Your task to perform on an android device: Search for sushi restaurants on Maps Image 0: 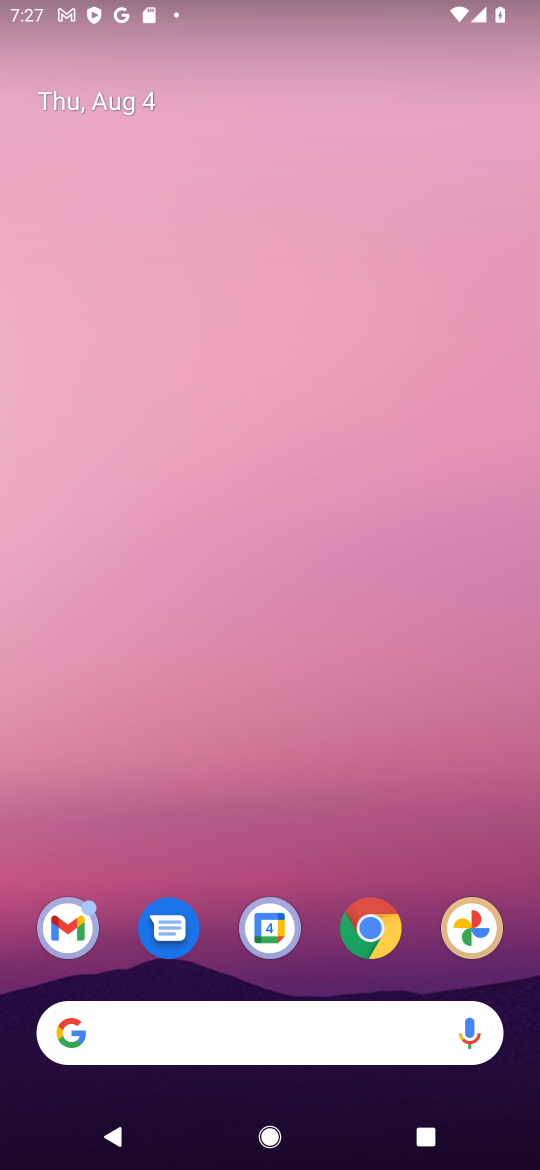
Step 0: drag from (187, 608) to (228, 132)
Your task to perform on an android device: Search for sushi restaurants on Maps Image 1: 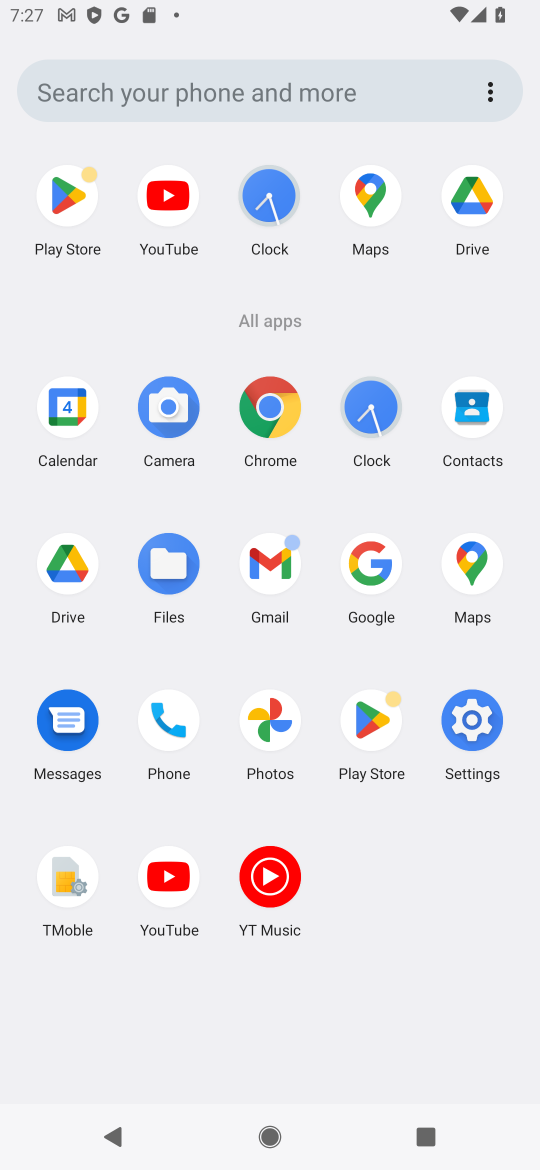
Step 1: click (470, 585)
Your task to perform on an android device: Search for sushi restaurants on Maps Image 2: 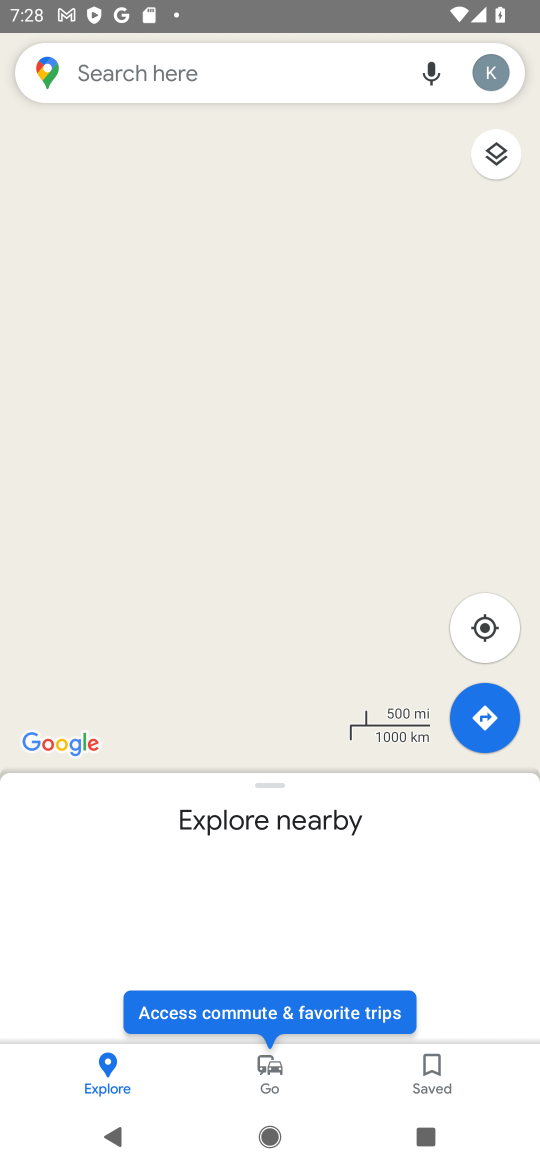
Step 2: click (237, 73)
Your task to perform on an android device: Search for sushi restaurants on Maps Image 3: 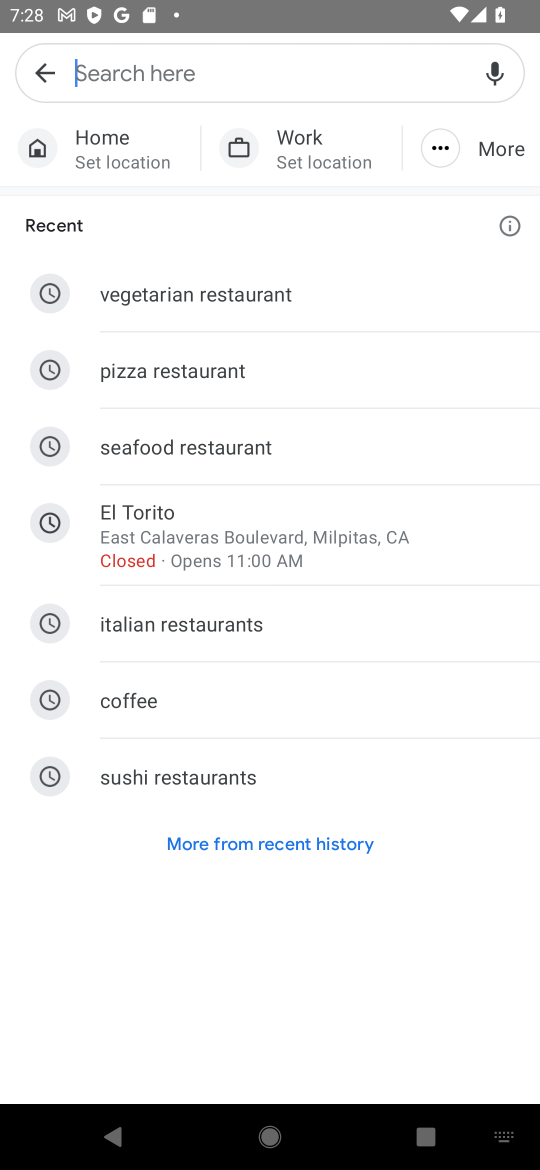
Step 3: type "sushi restaurants"
Your task to perform on an android device: Search for sushi restaurants on Maps Image 4: 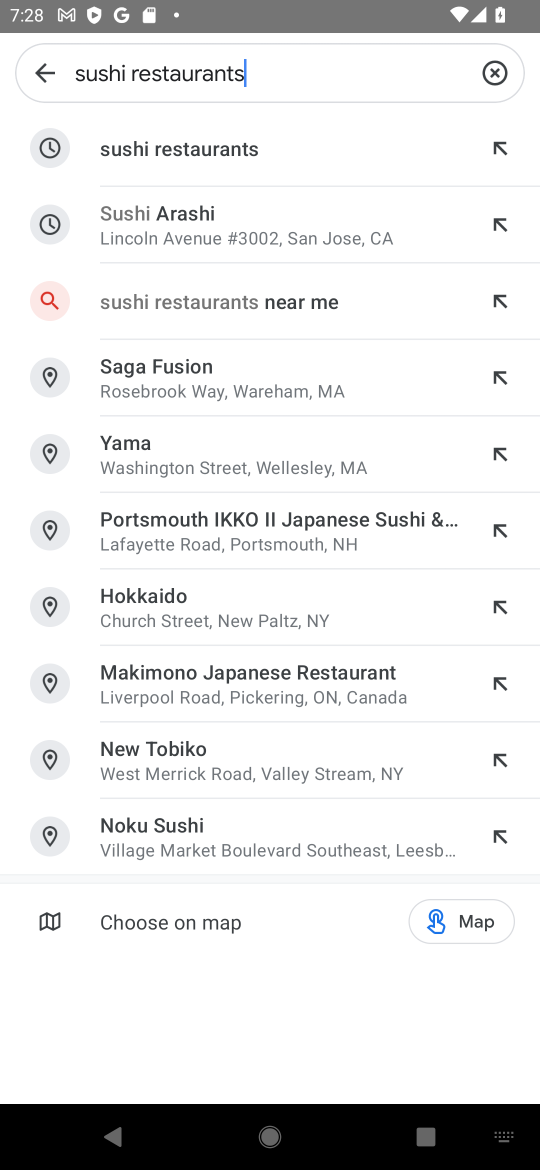
Step 4: click (196, 135)
Your task to perform on an android device: Search for sushi restaurants on Maps Image 5: 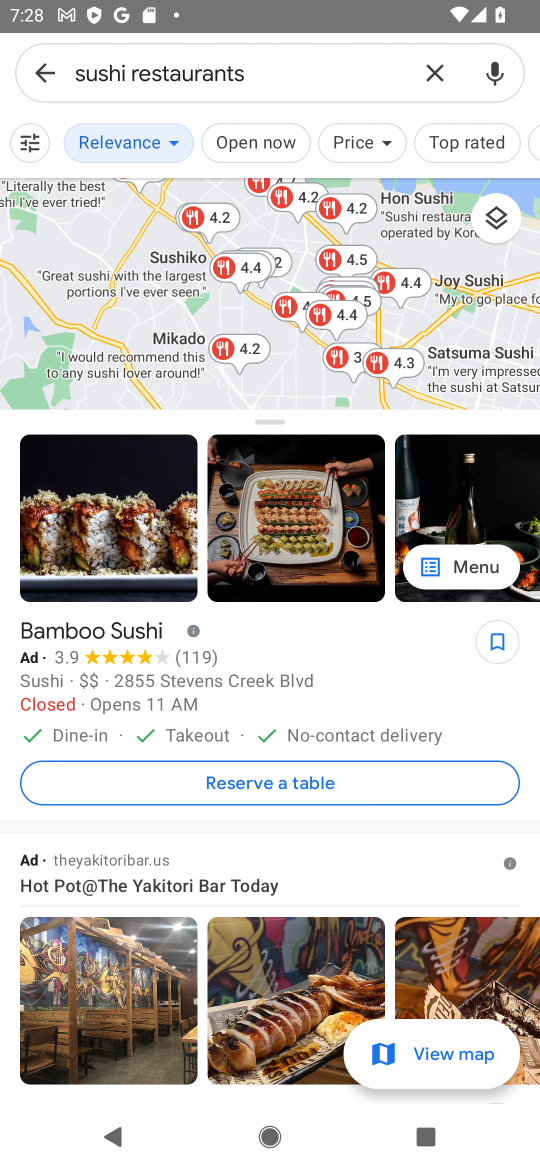
Step 5: task complete